Your task to perform on an android device: add a contact in the contacts app Image 0: 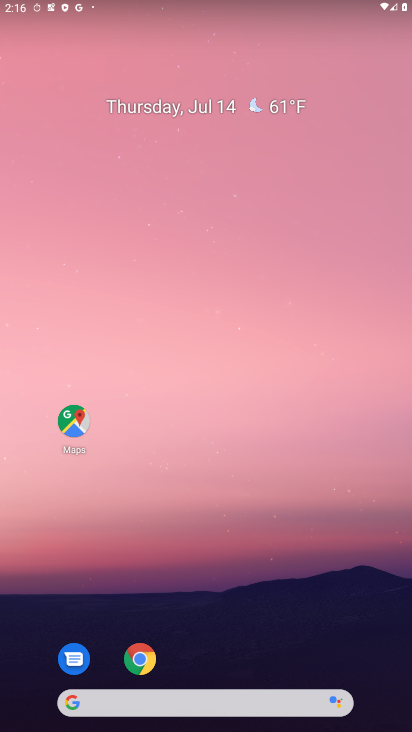
Step 0: drag from (217, 678) to (182, 167)
Your task to perform on an android device: add a contact in the contacts app Image 1: 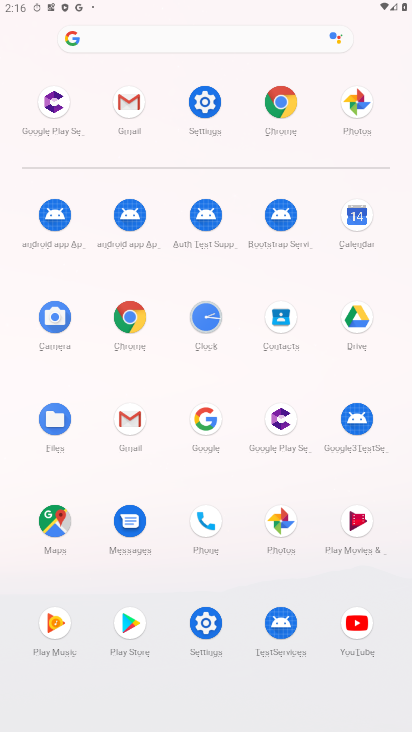
Step 1: click (212, 524)
Your task to perform on an android device: add a contact in the contacts app Image 2: 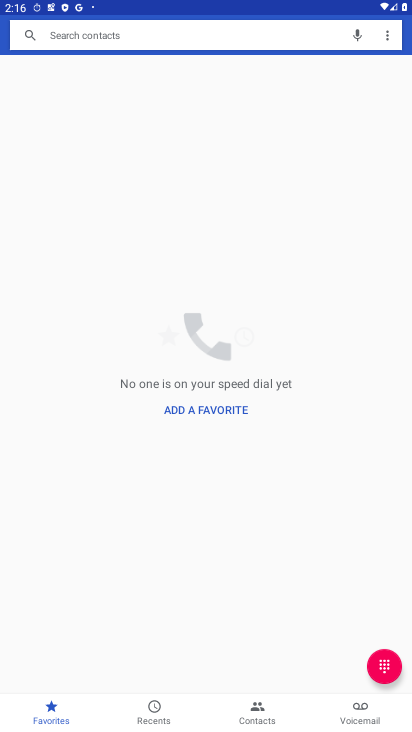
Step 2: click (262, 709)
Your task to perform on an android device: add a contact in the contacts app Image 3: 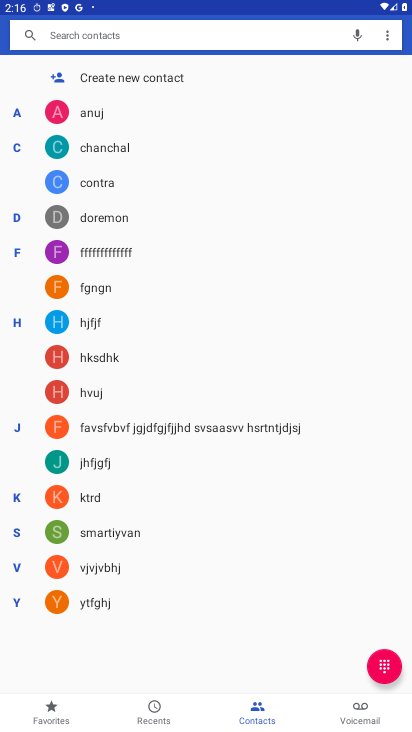
Step 3: click (132, 78)
Your task to perform on an android device: add a contact in the contacts app Image 4: 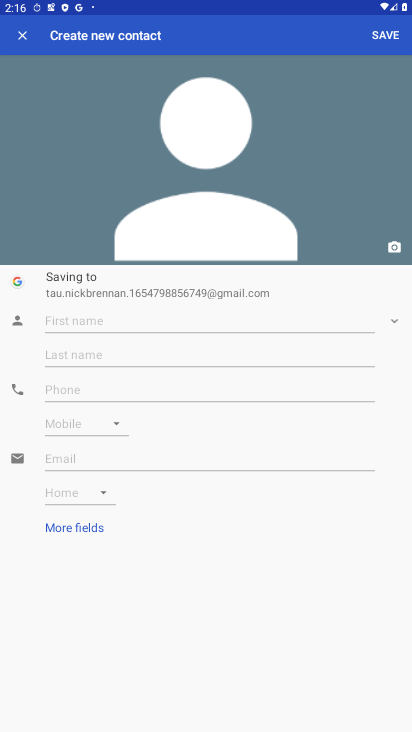
Step 4: click (49, 321)
Your task to perform on an android device: add a contact in the contacts app Image 5: 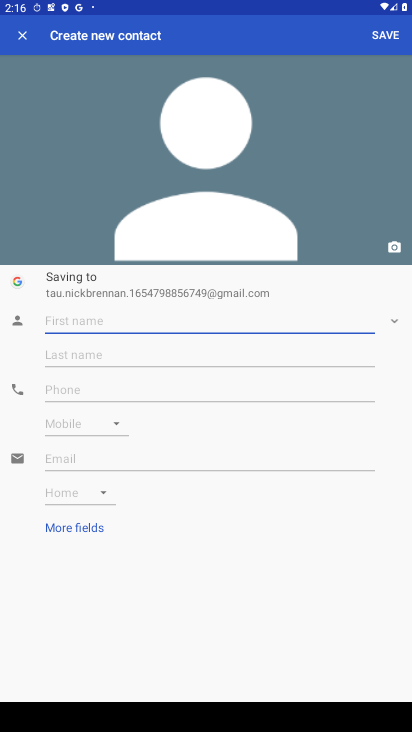
Step 5: type "nput"
Your task to perform on an android device: add a contact in the contacts app Image 6: 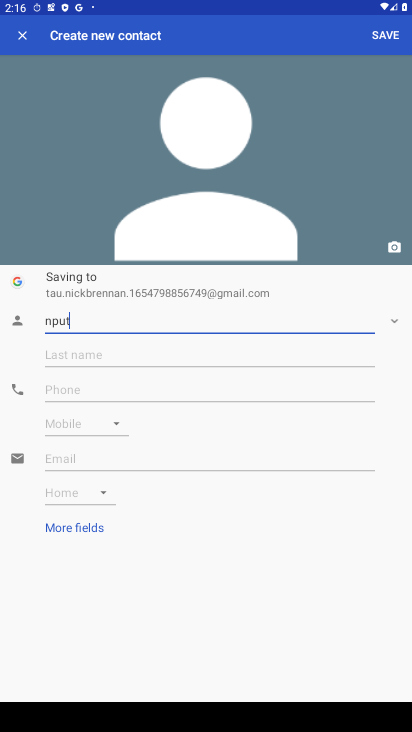
Step 6: type ""
Your task to perform on an android device: add a contact in the contacts app Image 7: 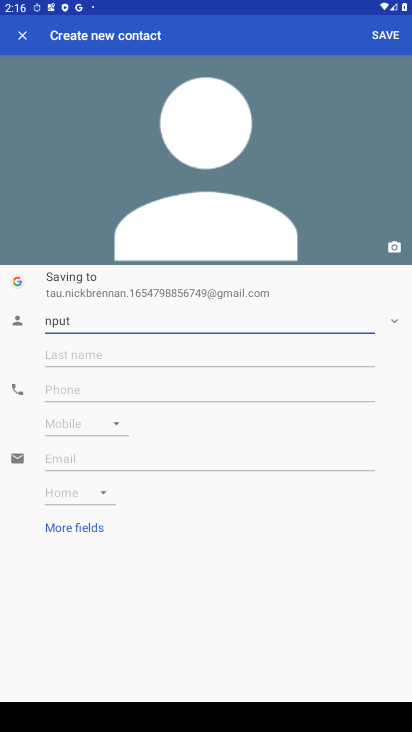
Step 7: click (382, 40)
Your task to perform on an android device: add a contact in the contacts app Image 8: 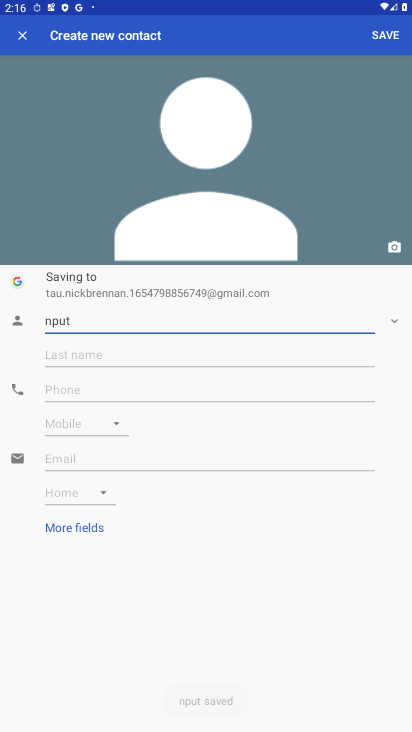
Step 8: task complete